Your task to perform on an android device: Open Android settings Image 0: 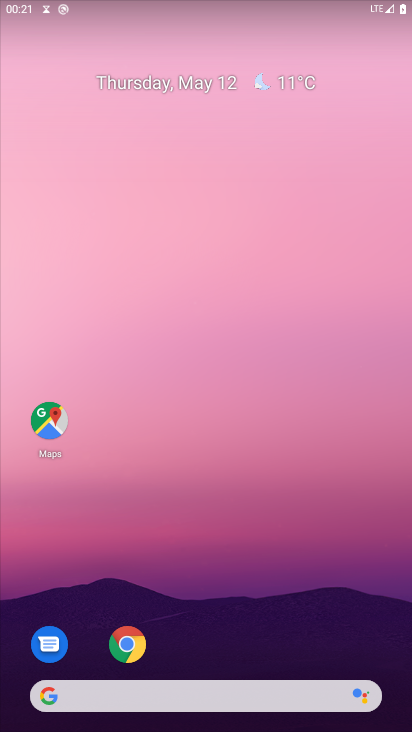
Step 0: drag from (221, 635) to (229, 63)
Your task to perform on an android device: Open Android settings Image 1: 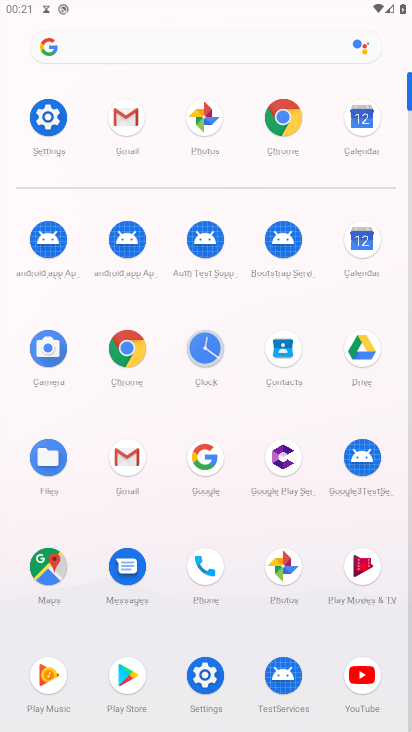
Step 1: click (208, 672)
Your task to perform on an android device: Open Android settings Image 2: 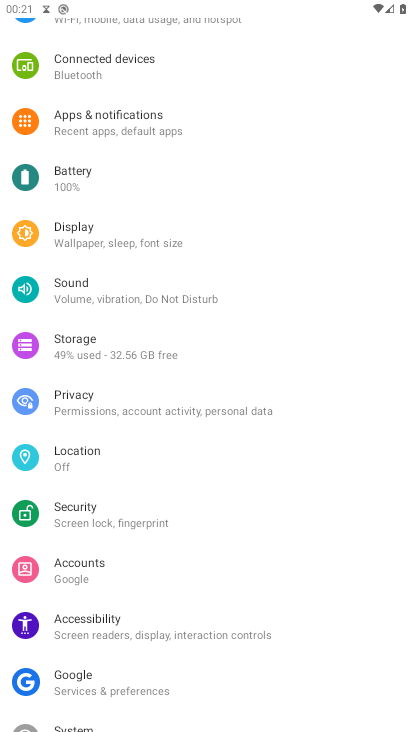
Step 2: drag from (176, 691) to (158, 76)
Your task to perform on an android device: Open Android settings Image 3: 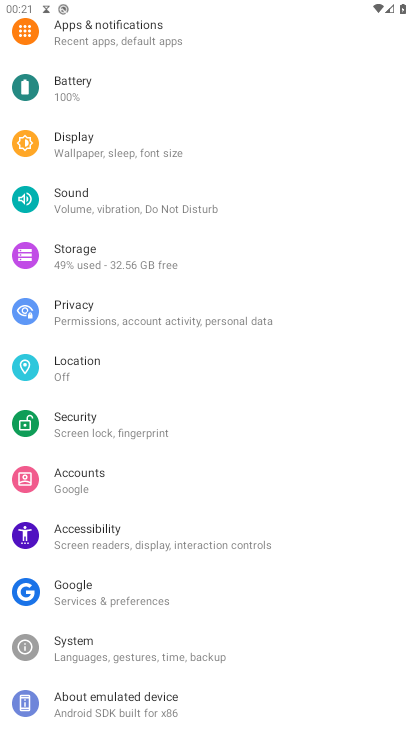
Step 3: click (180, 698)
Your task to perform on an android device: Open Android settings Image 4: 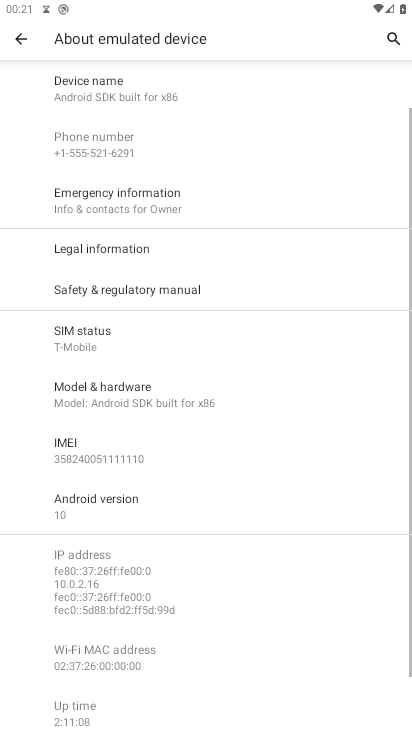
Step 4: click (121, 497)
Your task to perform on an android device: Open Android settings Image 5: 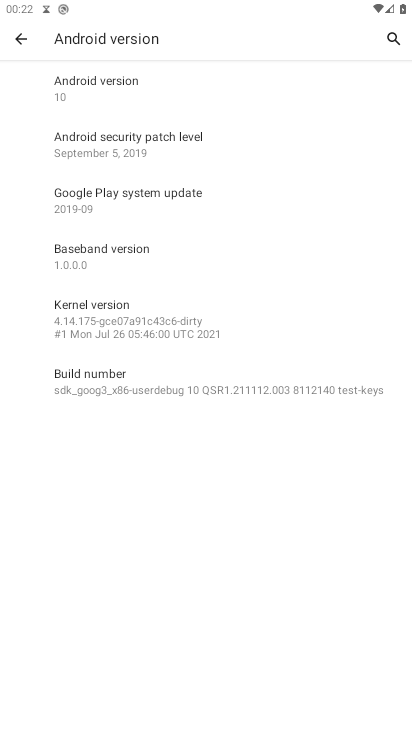
Step 5: task complete